Your task to perform on an android device: Open Android settings Image 0: 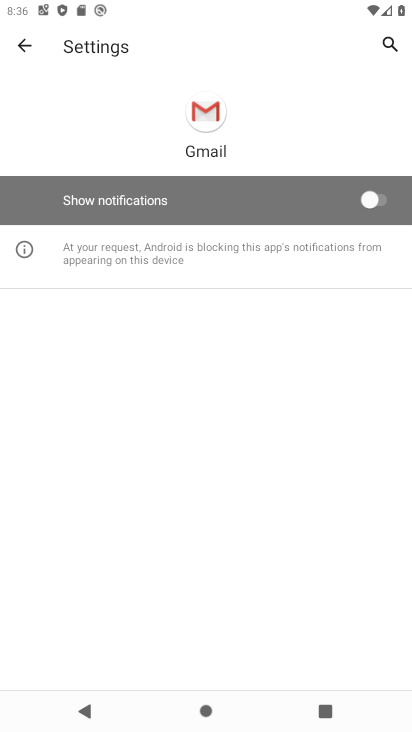
Step 0: click (31, 55)
Your task to perform on an android device: Open Android settings Image 1: 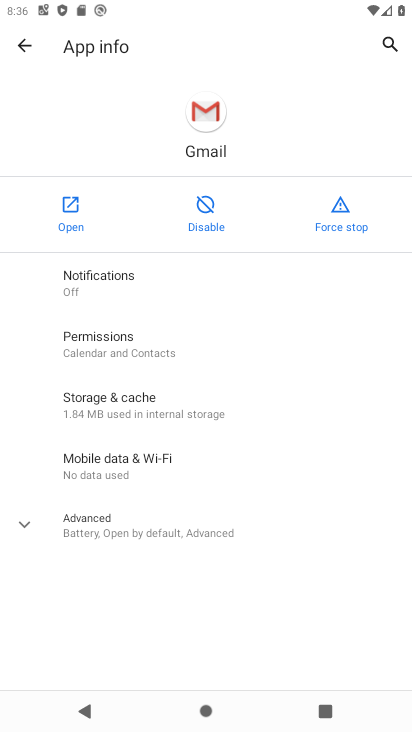
Step 1: click (31, 55)
Your task to perform on an android device: Open Android settings Image 2: 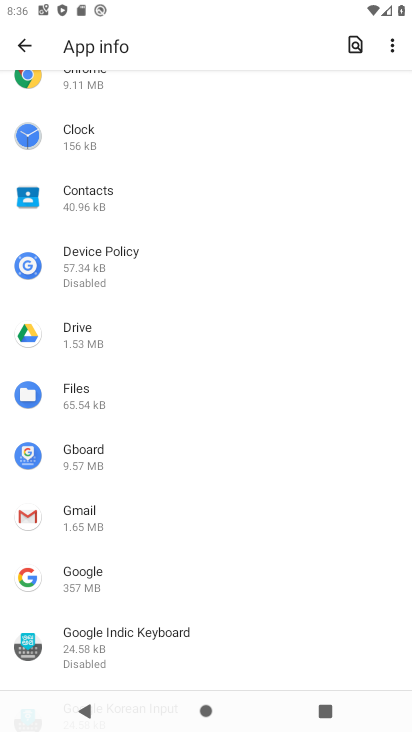
Step 2: click (31, 55)
Your task to perform on an android device: Open Android settings Image 3: 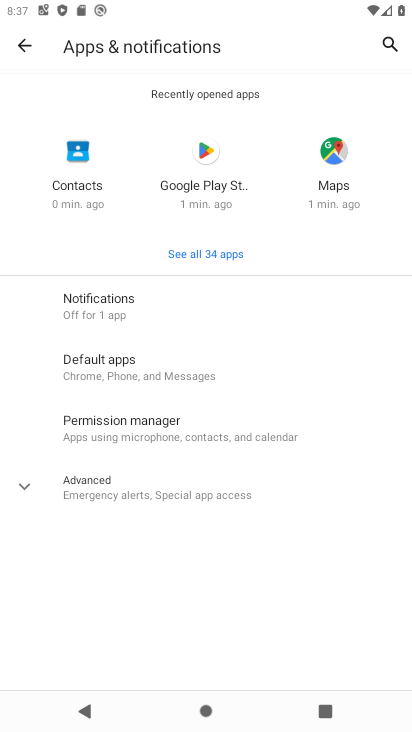
Step 3: click (31, 55)
Your task to perform on an android device: Open Android settings Image 4: 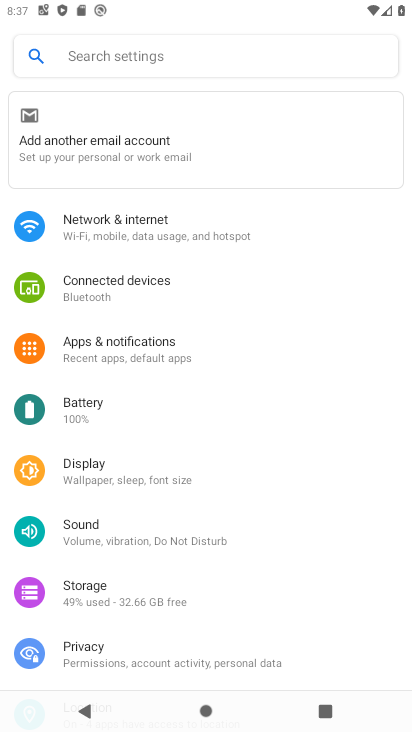
Step 4: task complete